Your task to perform on an android device: find which apps use the phone's location Image 0: 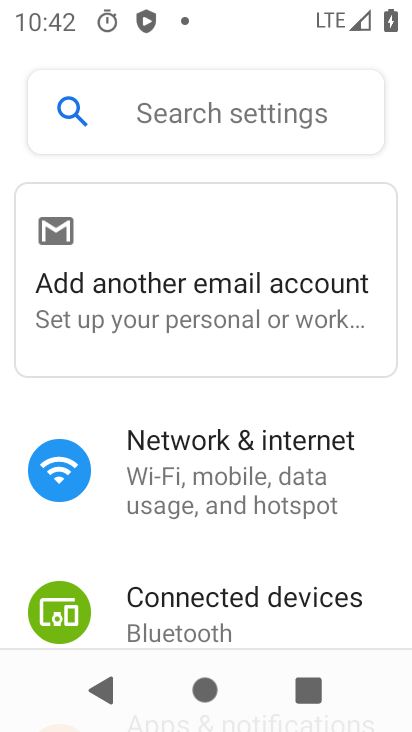
Step 0: drag from (346, 538) to (343, 84)
Your task to perform on an android device: find which apps use the phone's location Image 1: 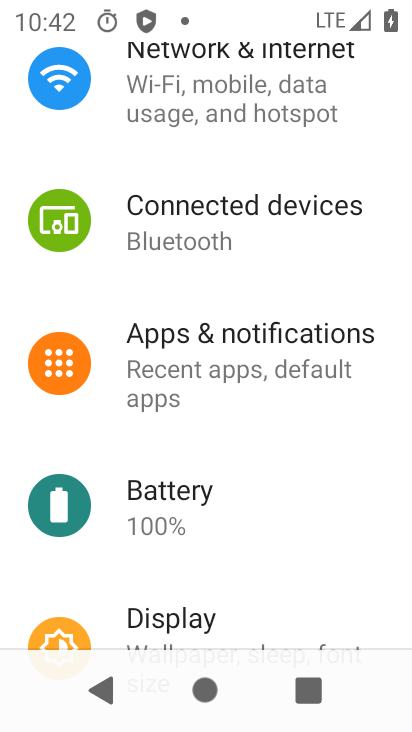
Step 1: drag from (285, 487) to (285, 122)
Your task to perform on an android device: find which apps use the phone's location Image 2: 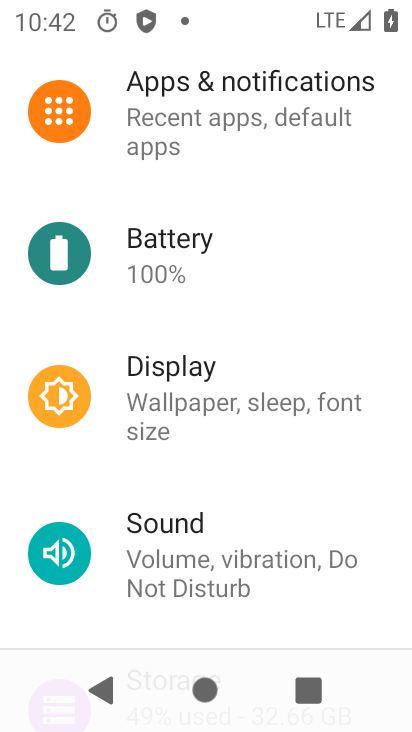
Step 2: drag from (249, 431) to (257, 120)
Your task to perform on an android device: find which apps use the phone's location Image 3: 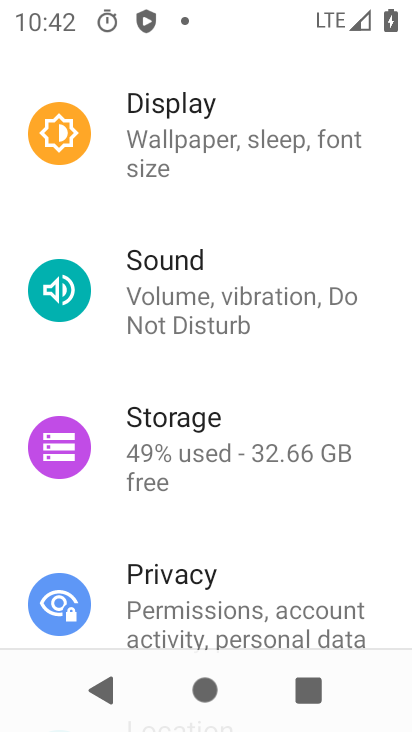
Step 3: drag from (216, 465) to (228, 148)
Your task to perform on an android device: find which apps use the phone's location Image 4: 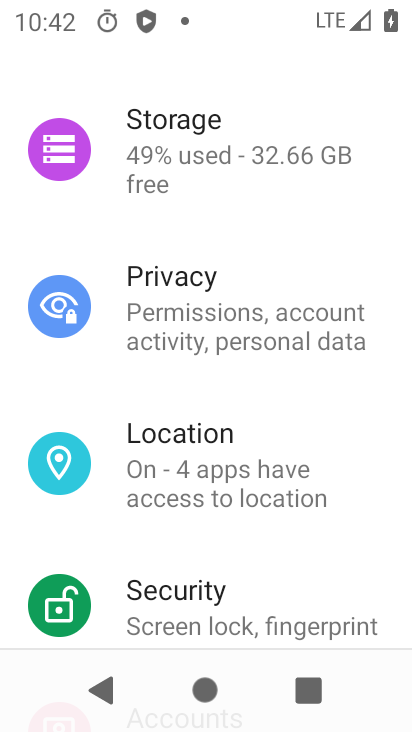
Step 4: click (220, 468)
Your task to perform on an android device: find which apps use the phone's location Image 5: 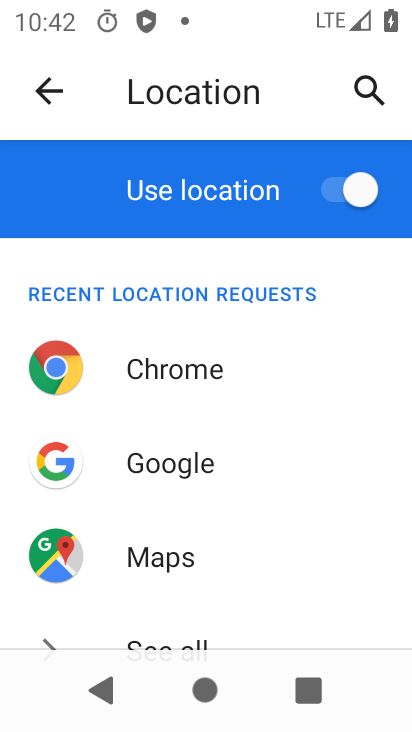
Step 5: drag from (326, 539) to (316, 158)
Your task to perform on an android device: find which apps use the phone's location Image 6: 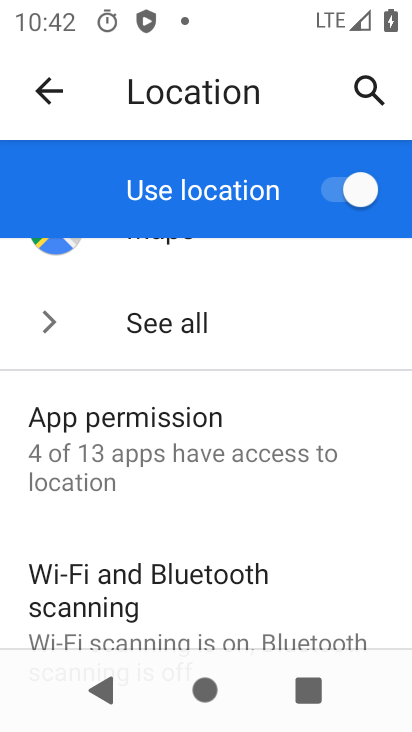
Step 6: click (104, 449)
Your task to perform on an android device: find which apps use the phone's location Image 7: 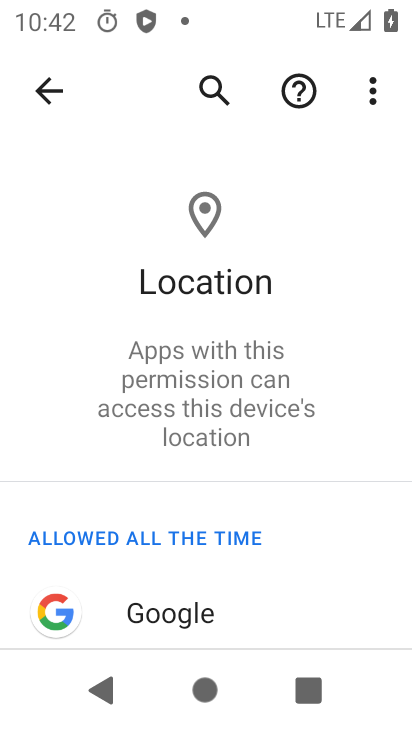
Step 7: task complete